Your task to perform on an android device: check storage Image 0: 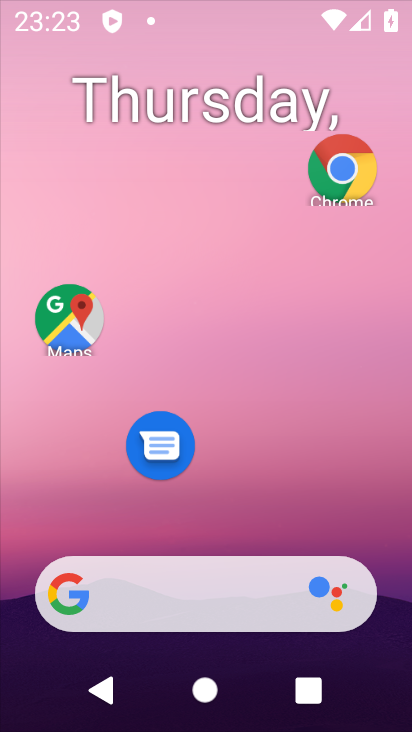
Step 0: drag from (248, 611) to (348, 25)
Your task to perform on an android device: check storage Image 1: 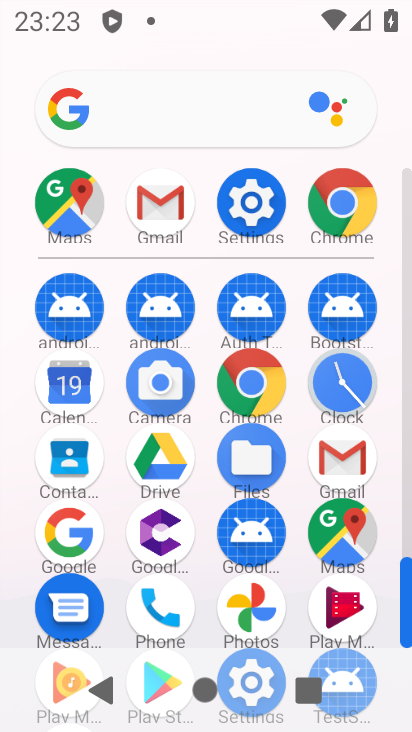
Step 1: drag from (206, 636) to (200, 379)
Your task to perform on an android device: check storage Image 2: 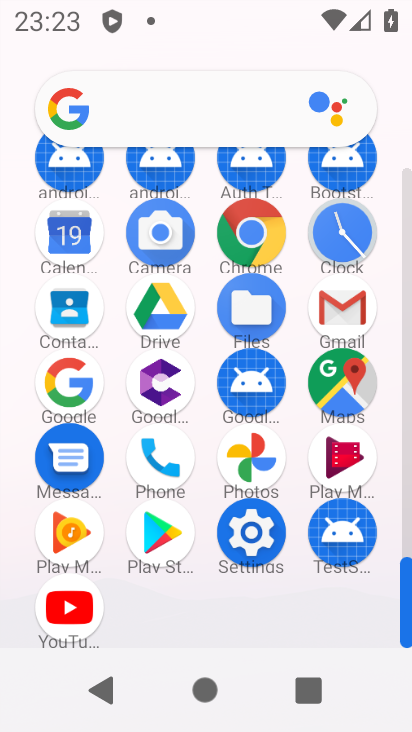
Step 2: click (245, 542)
Your task to perform on an android device: check storage Image 3: 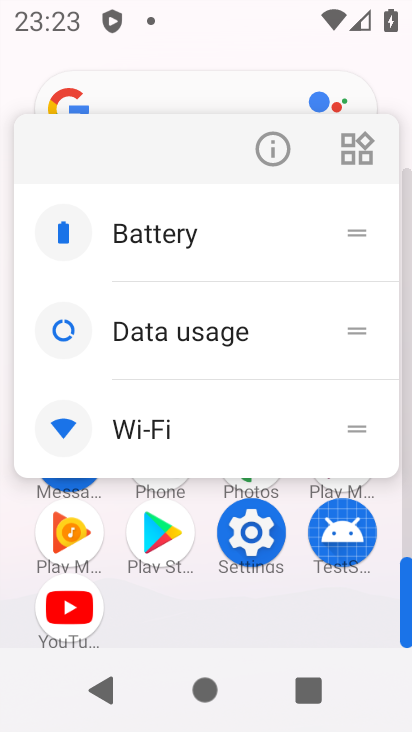
Step 3: click (275, 141)
Your task to perform on an android device: check storage Image 4: 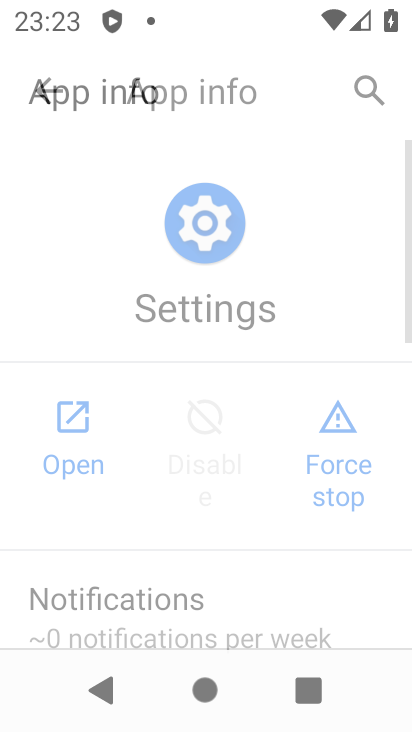
Step 4: drag from (229, 590) to (393, 47)
Your task to perform on an android device: check storage Image 5: 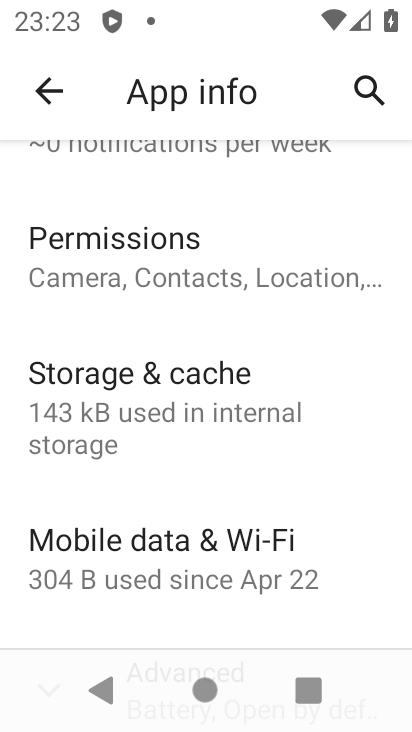
Step 5: drag from (119, 365) to (176, 730)
Your task to perform on an android device: check storage Image 6: 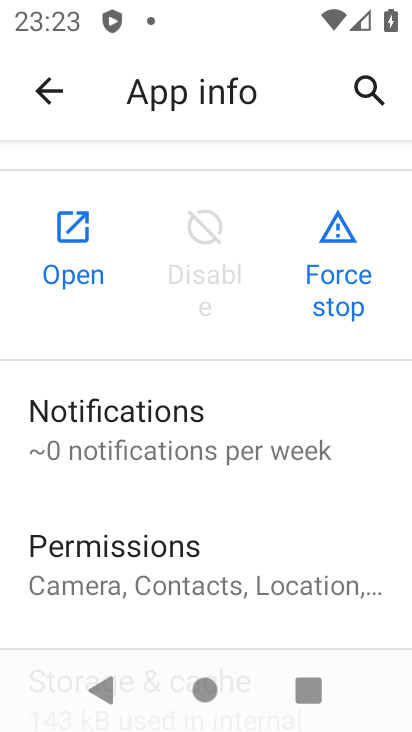
Step 6: click (73, 266)
Your task to perform on an android device: check storage Image 7: 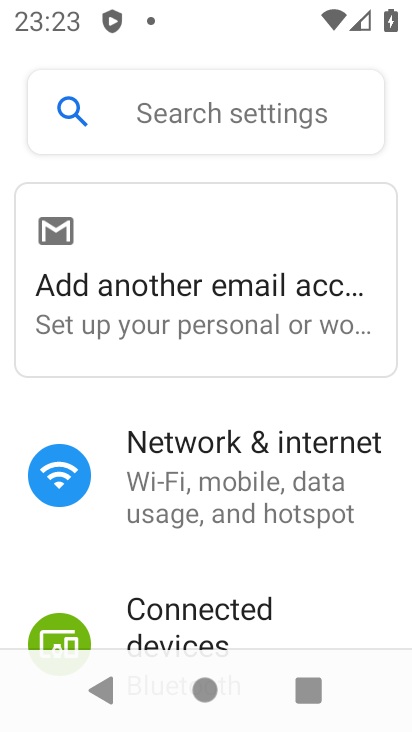
Step 7: drag from (241, 562) to (387, 9)
Your task to perform on an android device: check storage Image 8: 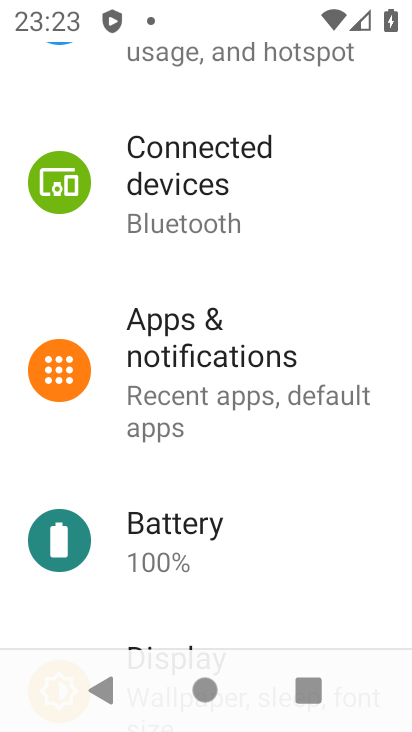
Step 8: drag from (245, 537) to (384, 76)
Your task to perform on an android device: check storage Image 9: 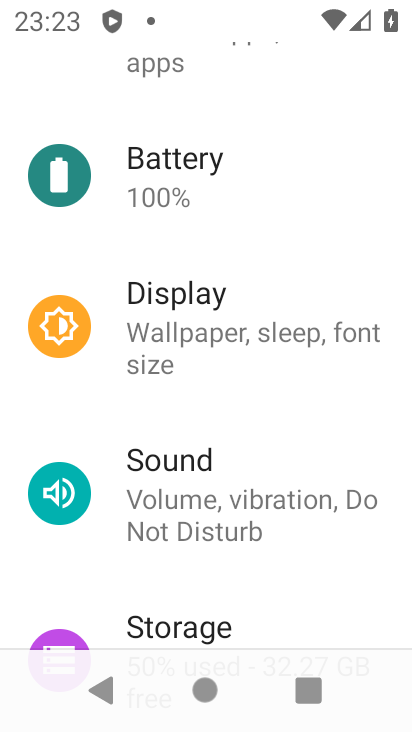
Step 9: click (185, 599)
Your task to perform on an android device: check storage Image 10: 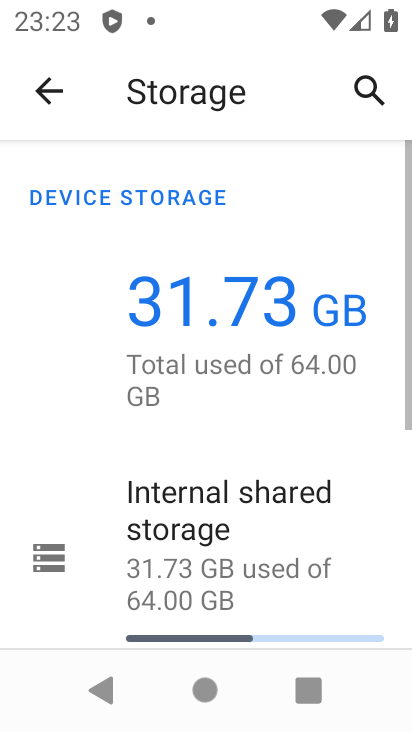
Step 10: task complete